Your task to perform on an android device: turn notification dots off Image 0: 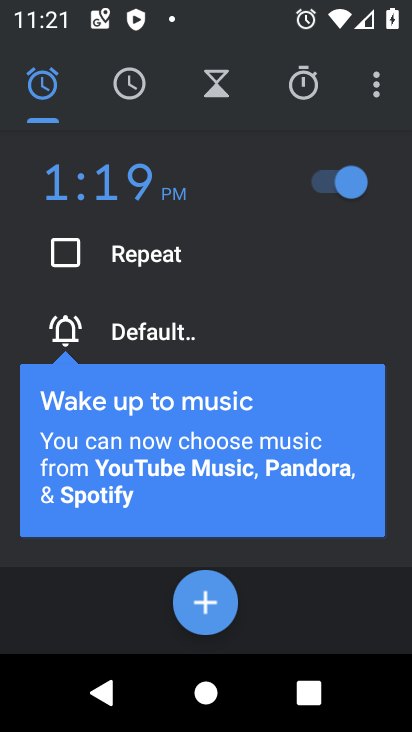
Step 0: press back button
Your task to perform on an android device: turn notification dots off Image 1: 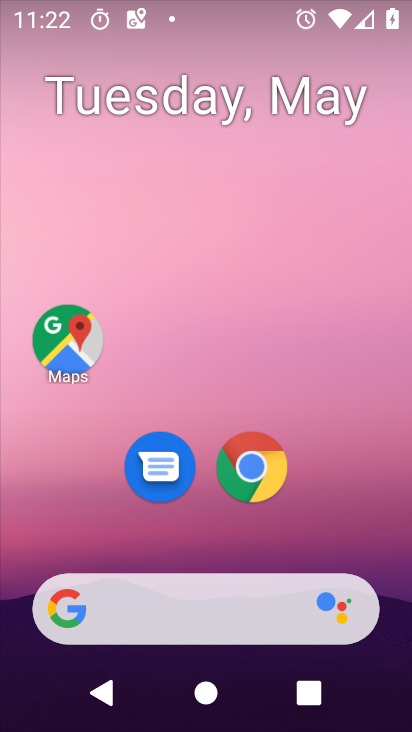
Step 1: drag from (345, 403) to (271, 55)
Your task to perform on an android device: turn notification dots off Image 2: 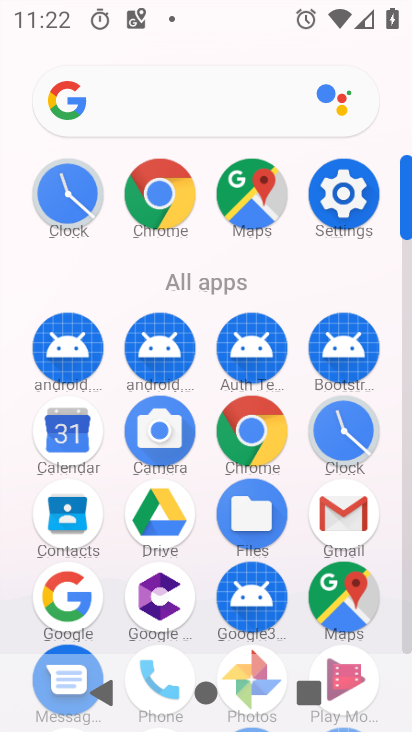
Step 2: click (342, 188)
Your task to perform on an android device: turn notification dots off Image 3: 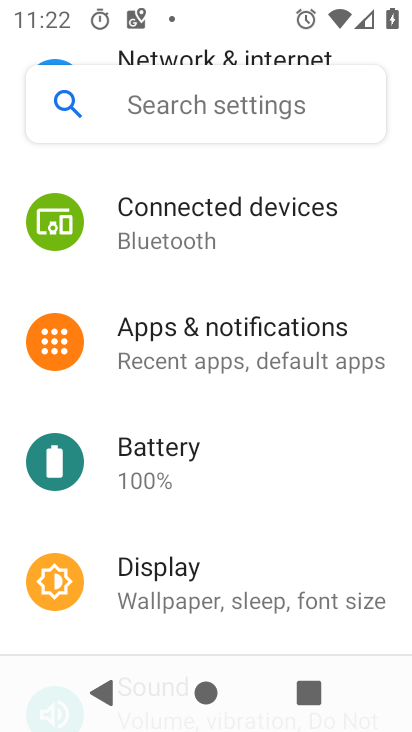
Step 3: click (267, 325)
Your task to perform on an android device: turn notification dots off Image 4: 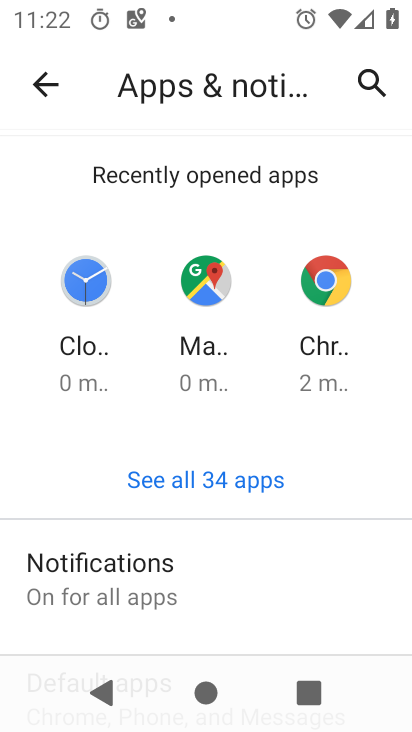
Step 4: drag from (277, 535) to (252, 194)
Your task to perform on an android device: turn notification dots off Image 5: 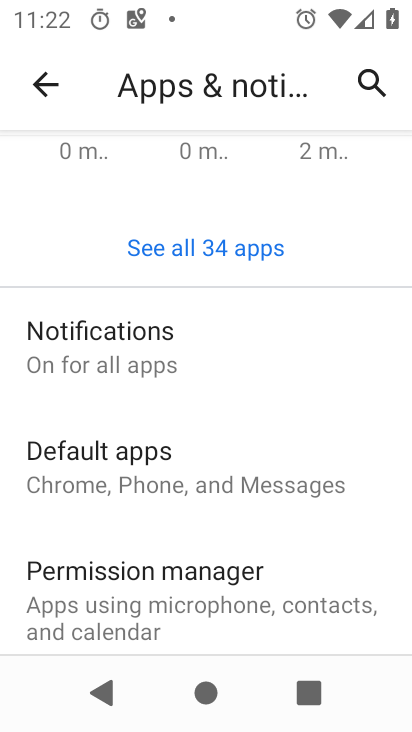
Step 5: click (165, 336)
Your task to perform on an android device: turn notification dots off Image 6: 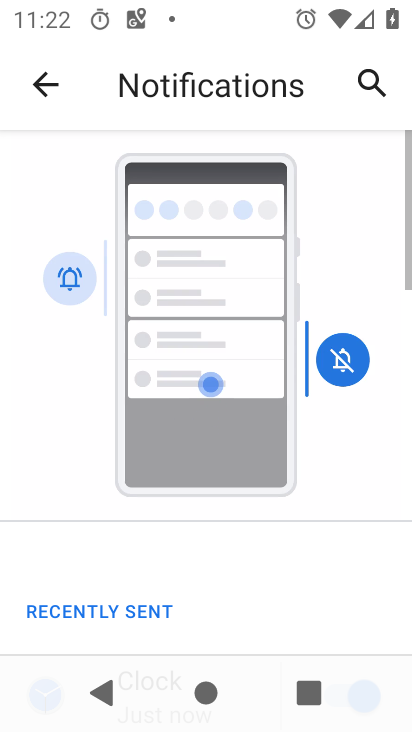
Step 6: drag from (275, 605) to (266, 119)
Your task to perform on an android device: turn notification dots off Image 7: 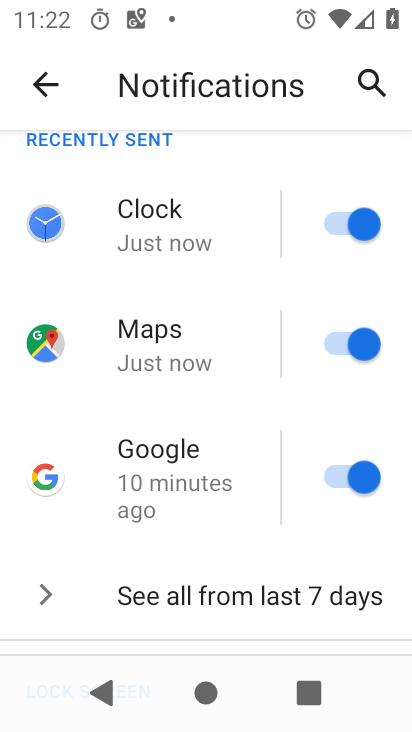
Step 7: drag from (204, 540) to (234, 104)
Your task to perform on an android device: turn notification dots off Image 8: 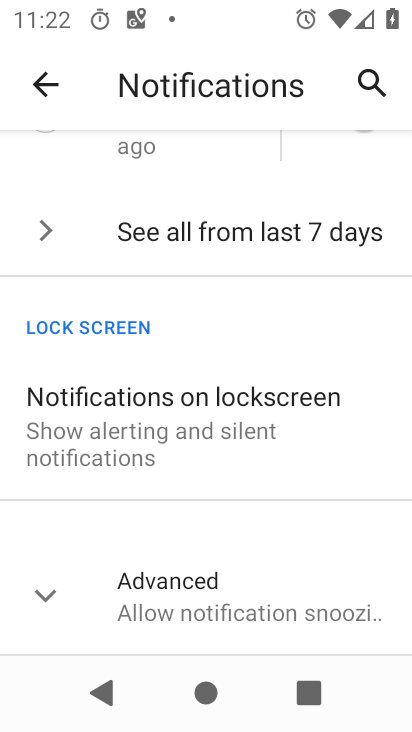
Step 8: click (223, 599)
Your task to perform on an android device: turn notification dots off Image 9: 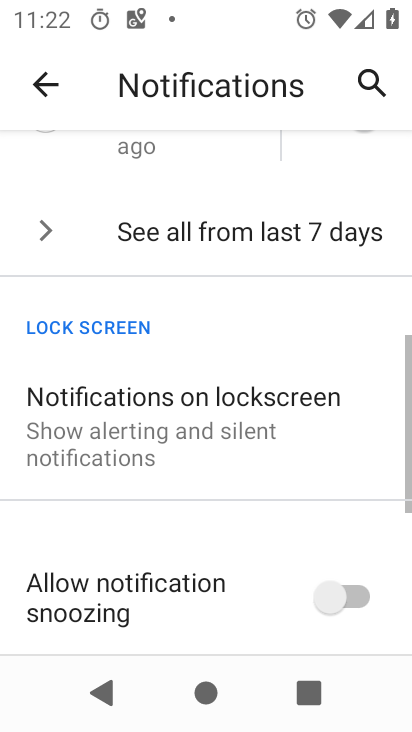
Step 9: task complete